Your task to perform on an android device: find photos in the google photos app Image 0: 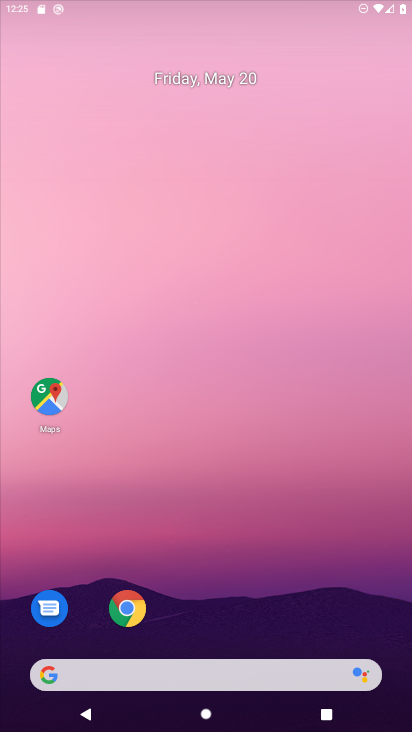
Step 0: press home button
Your task to perform on an android device: find photos in the google photos app Image 1: 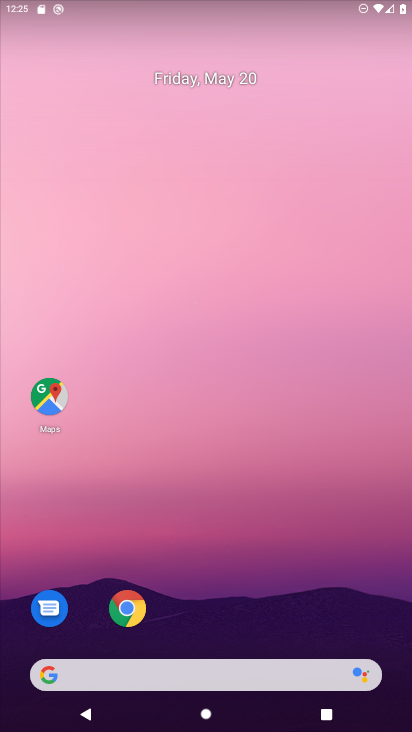
Step 1: drag from (296, 367) to (306, 123)
Your task to perform on an android device: find photos in the google photos app Image 2: 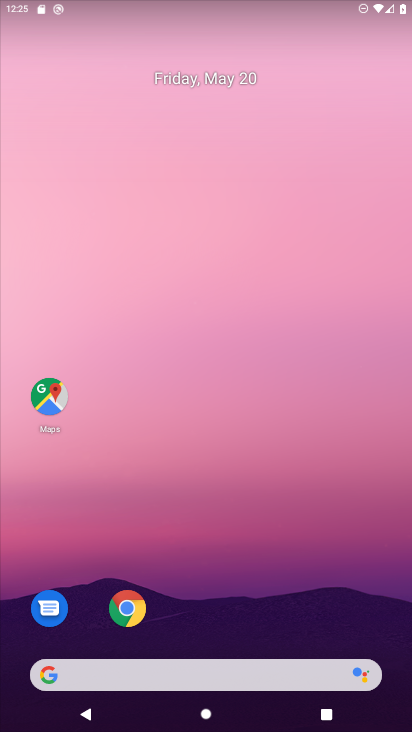
Step 2: drag from (401, 702) to (341, 80)
Your task to perform on an android device: find photos in the google photos app Image 3: 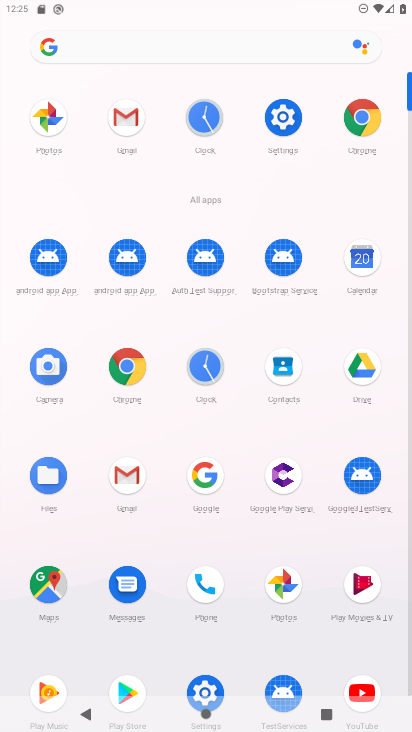
Step 3: click (278, 599)
Your task to perform on an android device: find photos in the google photos app Image 4: 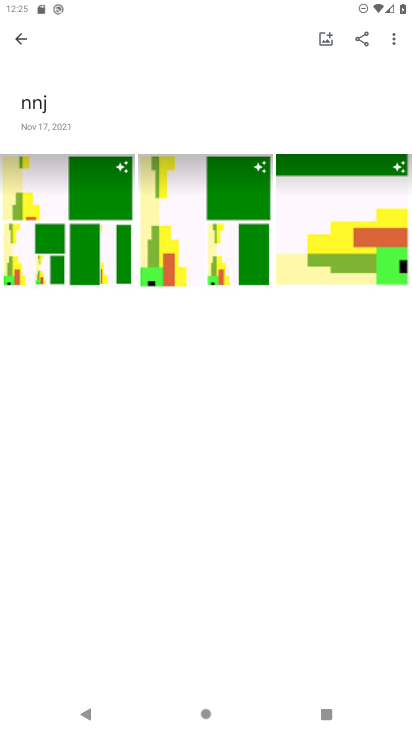
Step 4: click (18, 26)
Your task to perform on an android device: find photos in the google photos app Image 5: 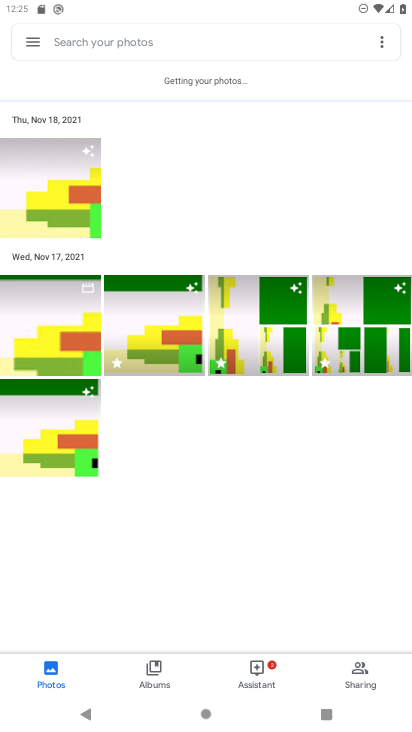
Step 5: task complete